Your task to perform on an android device: allow notifications from all sites in the chrome app Image 0: 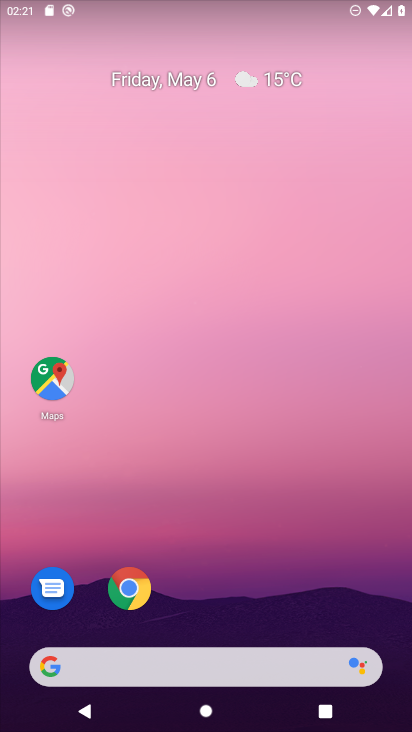
Step 0: drag from (223, 610) to (108, 79)
Your task to perform on an android device: allow notifications from all sites in the chrome app Image 1: 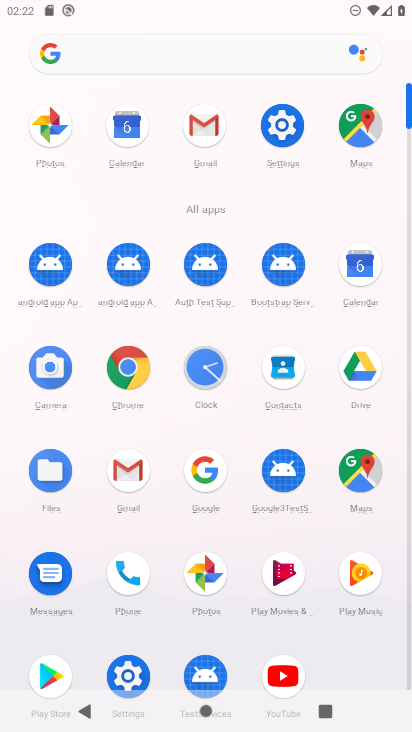
Step 1: click (118, 358)
Your task to perform on an android device: allow notifications from all sites in the chrome app Image 2: 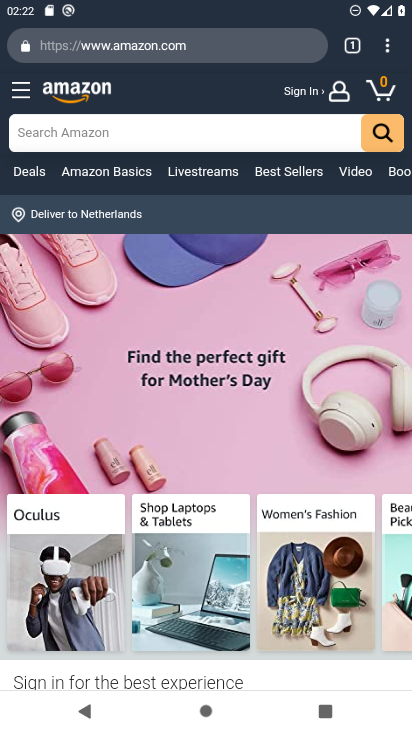
Step 2: click (388, 45)
Your task to perform on an android device: allow notifications from all sites in the chrome app Image 3: 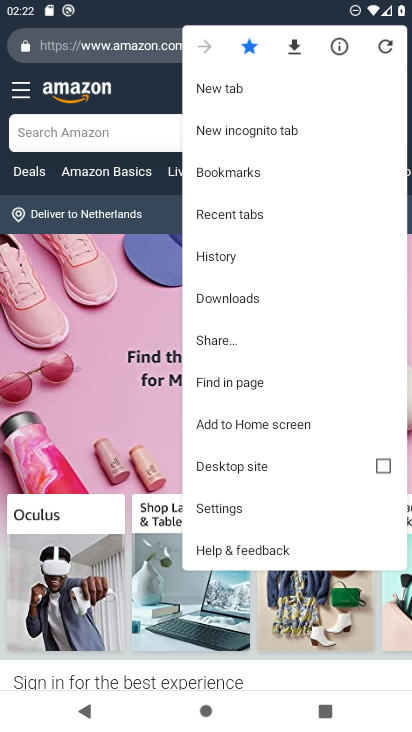
Step 3: click (217, 506)
Your task to perform on an android device: allow notifications from all sites in the chrome app Image 4: 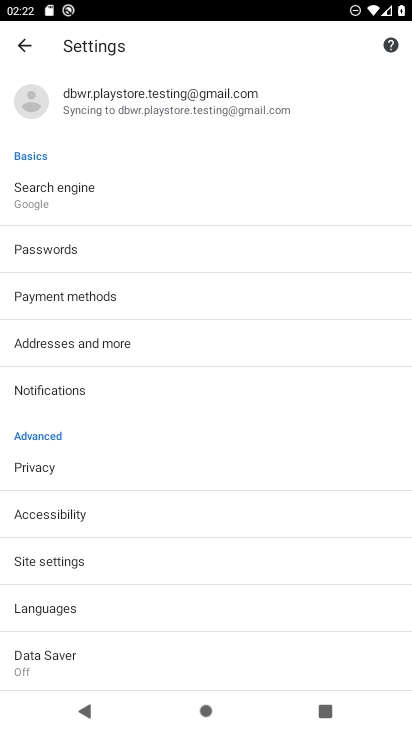
Step 4: click (82, 399)
Your task to perform on an android device: allow notifications from all sites in the chrome app Image 5: 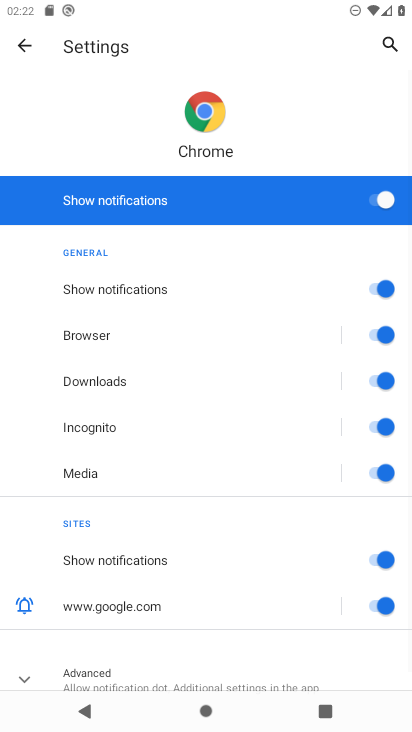
Step 5: click (18, 45)
Your task to perform on an android device: allow notifications from all sites in the chrome app Image 6: 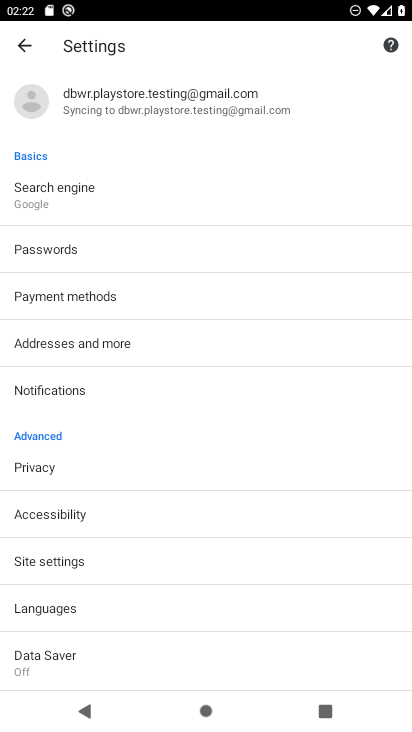
Step 6: click (42, 548)
Your task to perform on an android device: allow notifications from all sites in the chrome app Image 7: 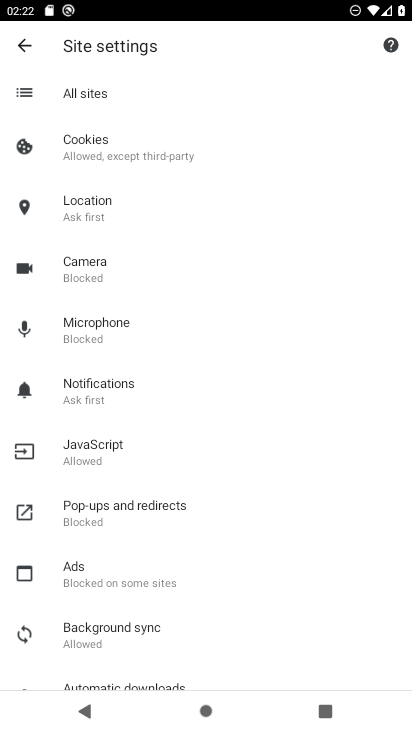
Step 7: click (96, 397)
Your task to perform on an android device: allow notifications from all sites in the chrome app Image 8: 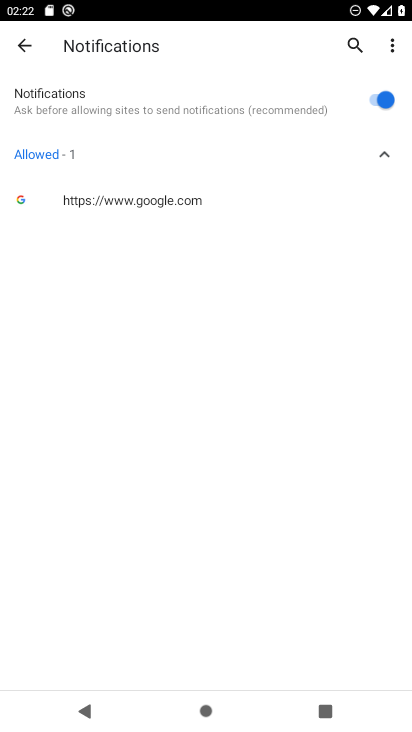
Step 8: task complete